Your task to perform on an android device: turn off notifications in google photos Image 0: 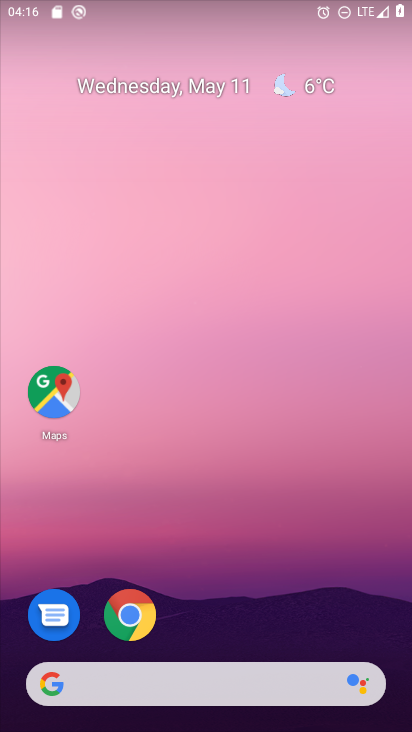
Step 0: drag from (260, 640) to (233, 74)
Your task to perform on an android device: turn off notifications in google photos Image 1: 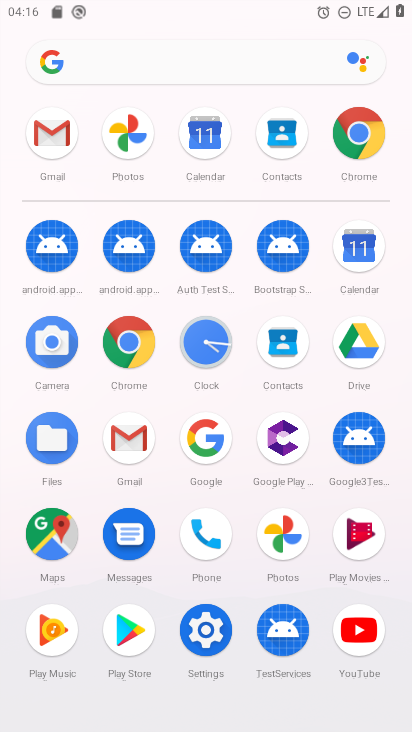
Step 1: click (278, 535)
Your task to perform on an android device: turn off notifications in google photos Image 2: 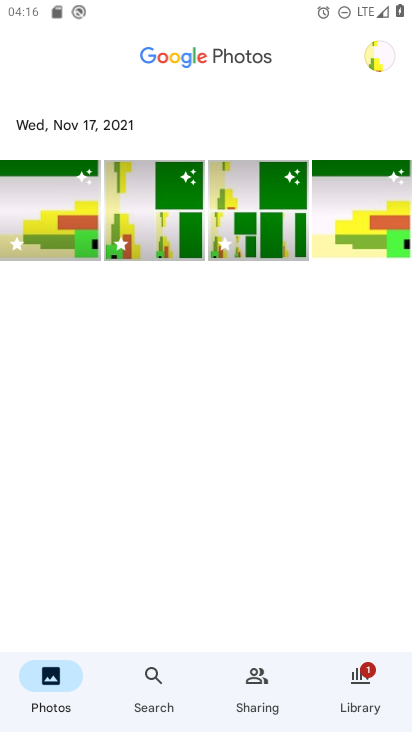
Step 2: click (391, 60)
Your task to perform on an android device: turn off notifications in google photos Image 3: 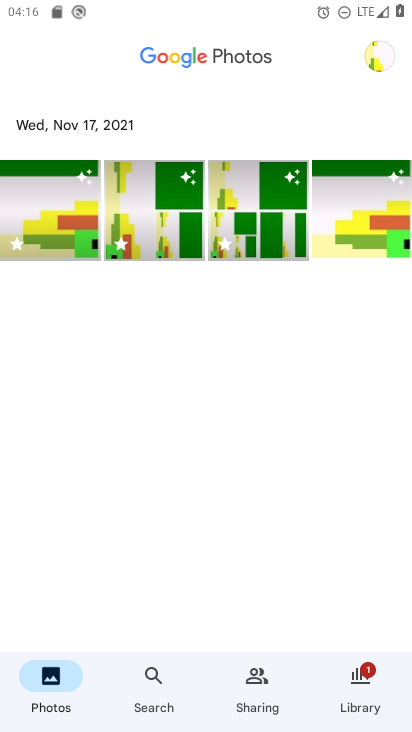
Step 3: click (382, 55)
Your task to perform on an android device: turn off notifications in google photos Image 4: 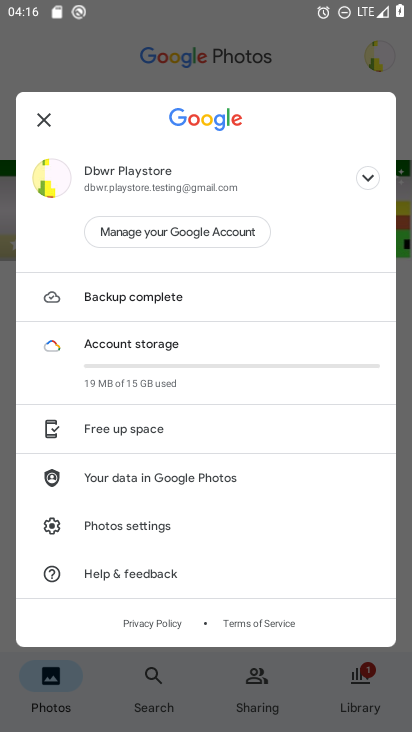
Step 4: click (156, 522)
Your task to perform on an android device: turn off notifications in google photos Image 5: 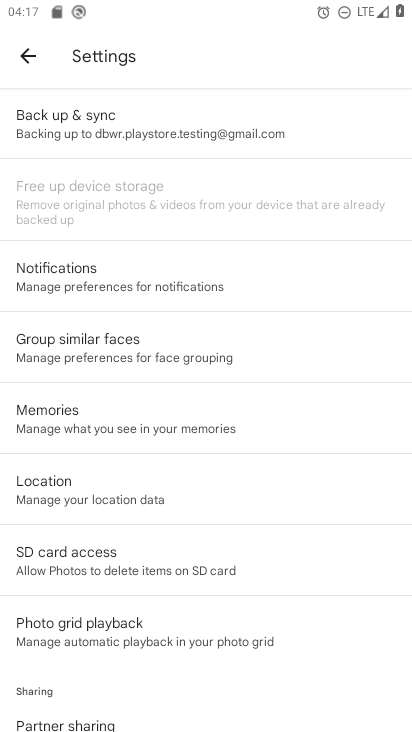
Step 5: click (137, 272)
Your task to perform on an android device: turn off notifications in google photos Image 6: 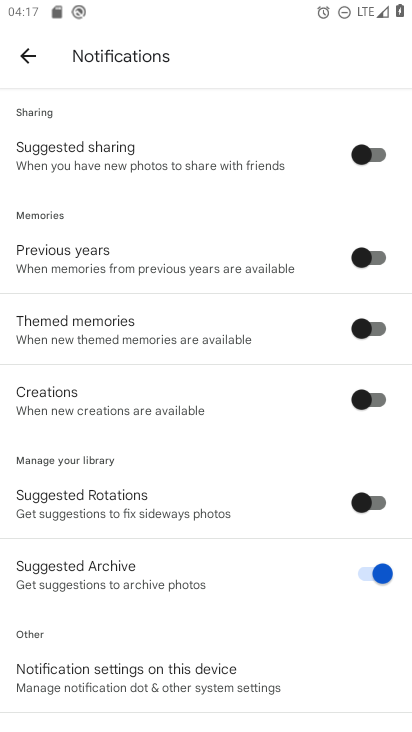
Step 6: click (157, 676)
Your task to perform on an android device: turn off notifications in google photos Image 7: 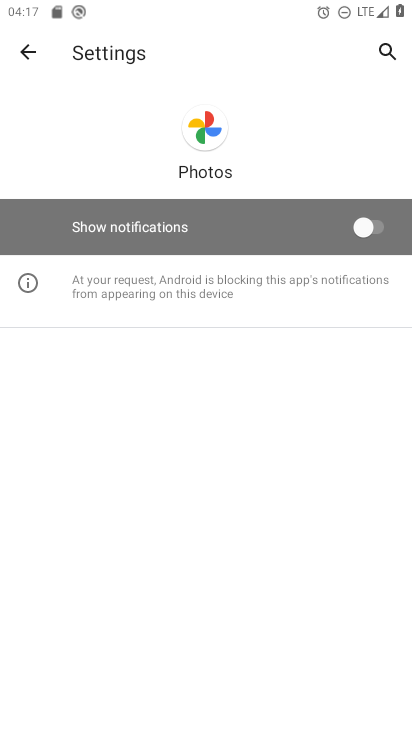
Step 7: task complete